Your task to perform on an android device: Open the phone app and click the voicemail tab. Image 0: 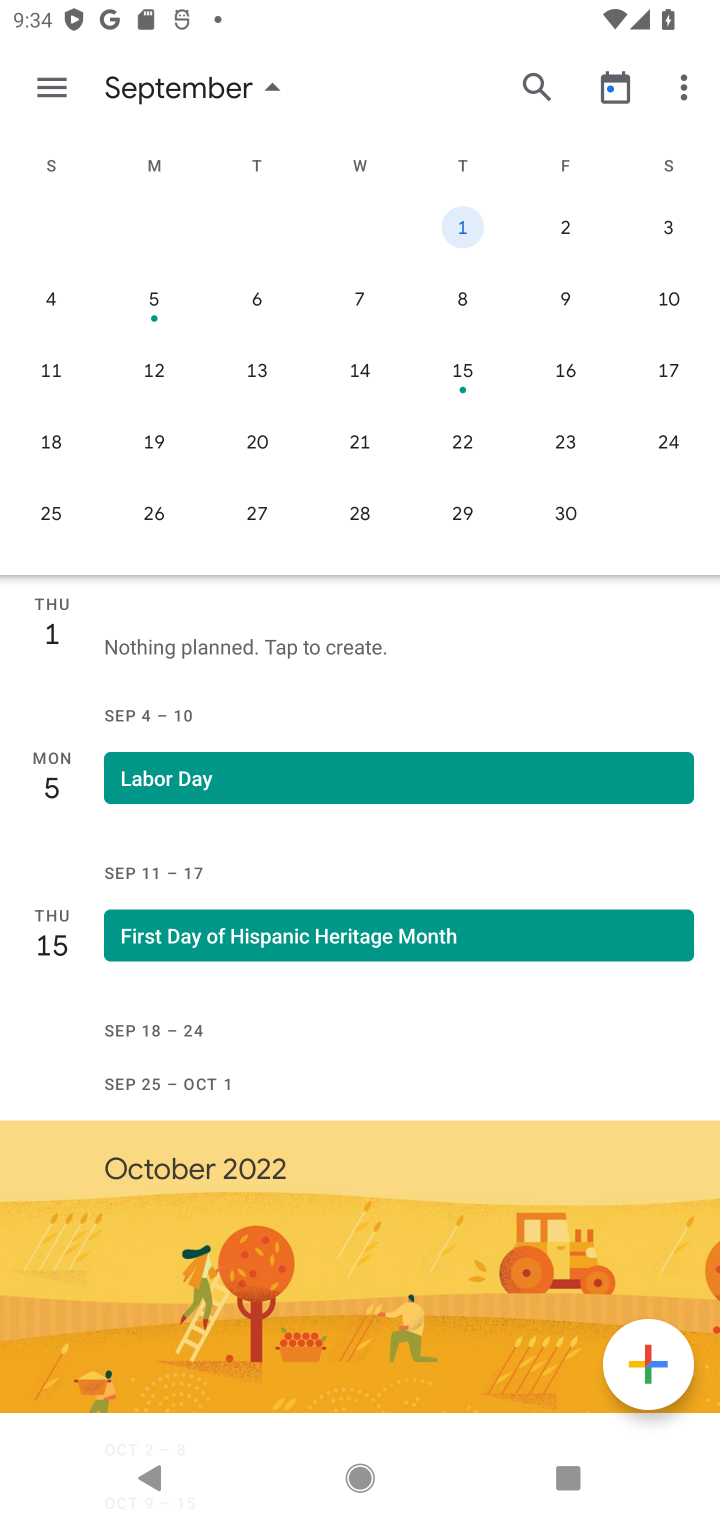
Step 0: press home button
Your task to perform on an android device: Open the phone app and click the voicemail tab. Image 1: 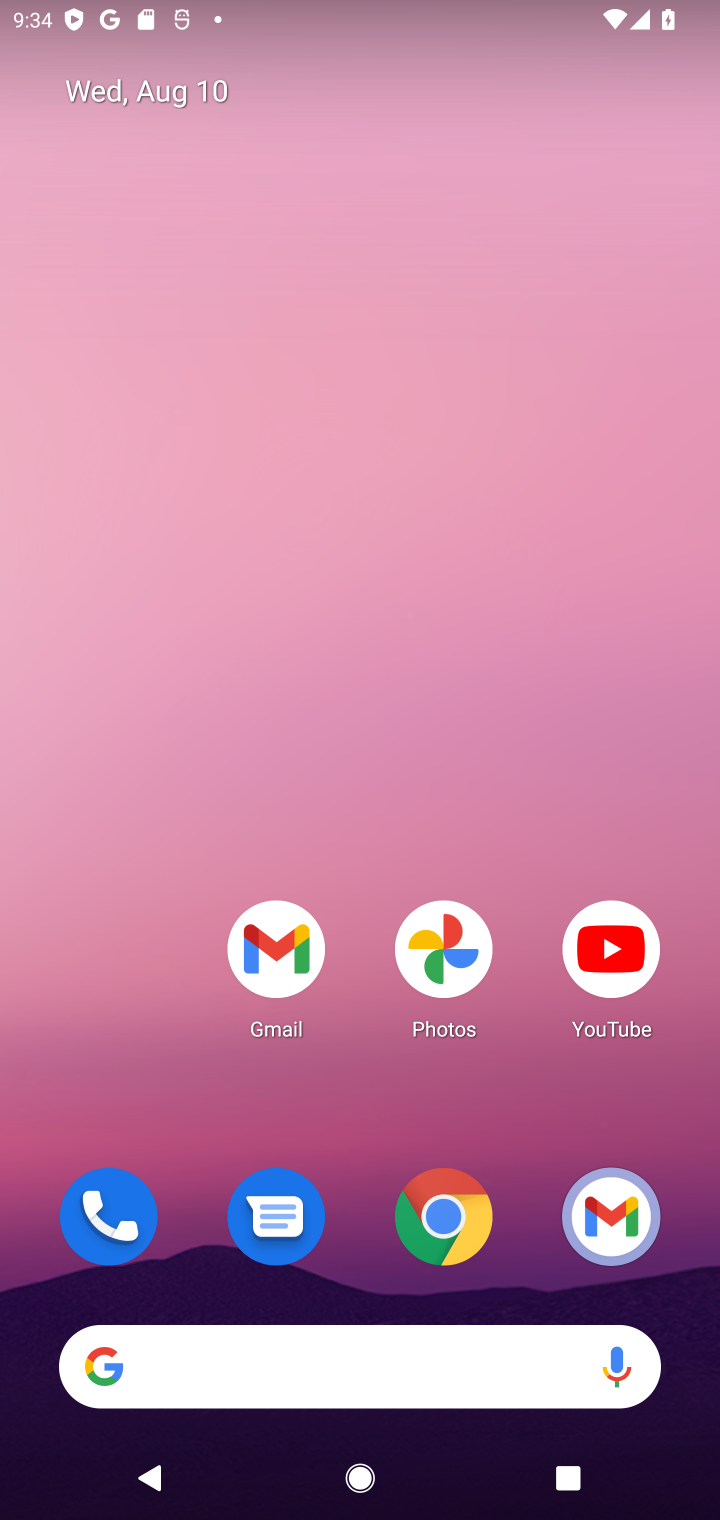
Step 1: click (120, 1225)
Your task to perform on an android device: Open the phone app and click the voicemail tab. Image 2: 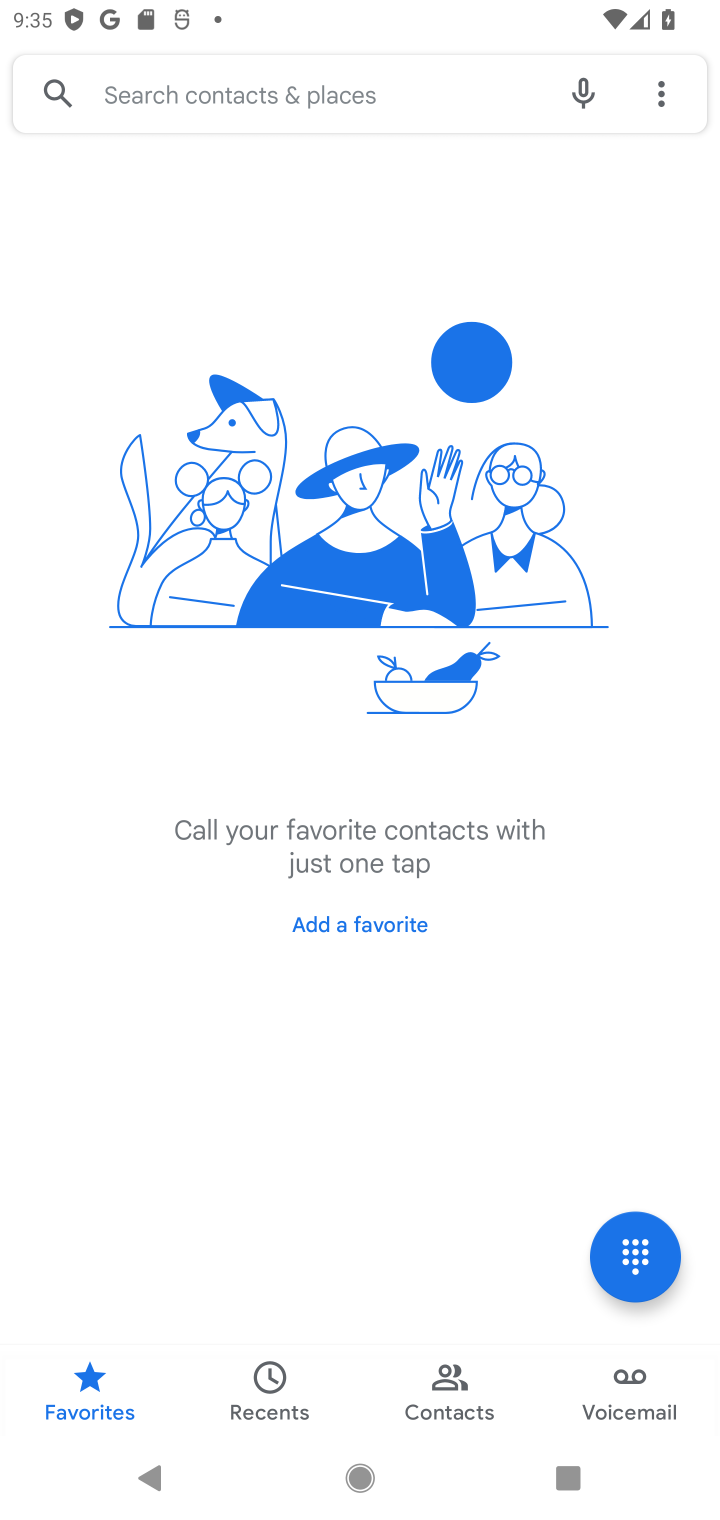
Step 2: task complete